Your task to perform on an android device: Open location settings Image 0: 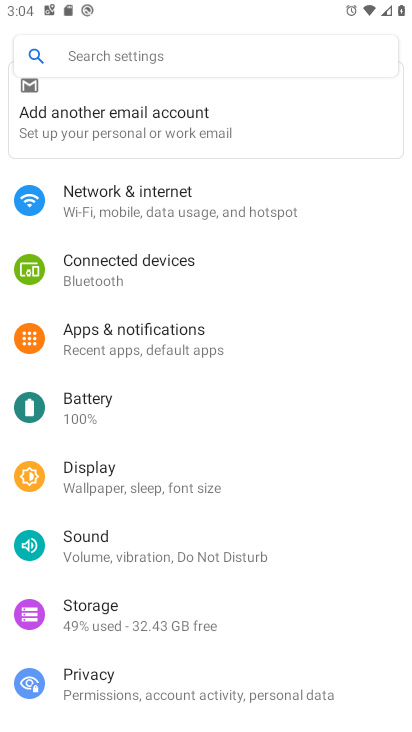
Step 0: press home button
Your task to perform on an android device: Open location settings Image 1: 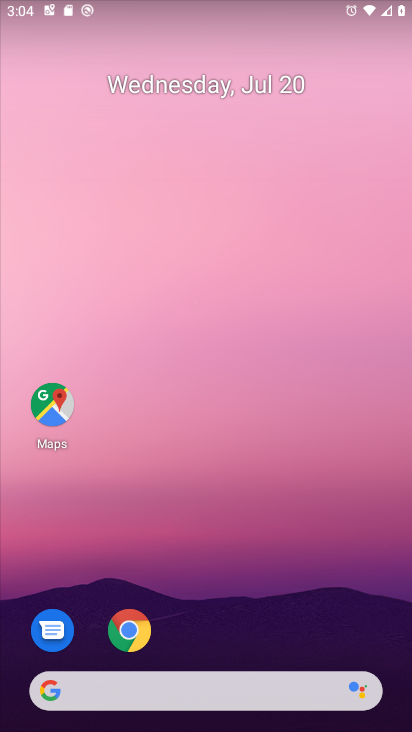
Step 1: drag from (158, 689) to (201, 197)
Your task to perform on an android device: Open location settings Image 2: 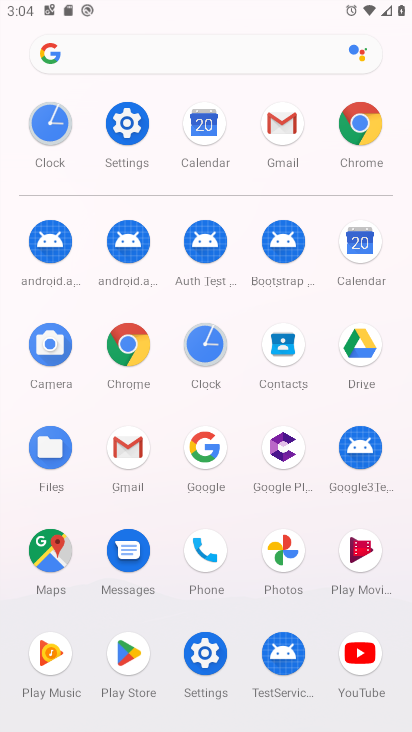
Step 2: click (132, 142)
Your task to perform on an android device: Open location settings Image 3: 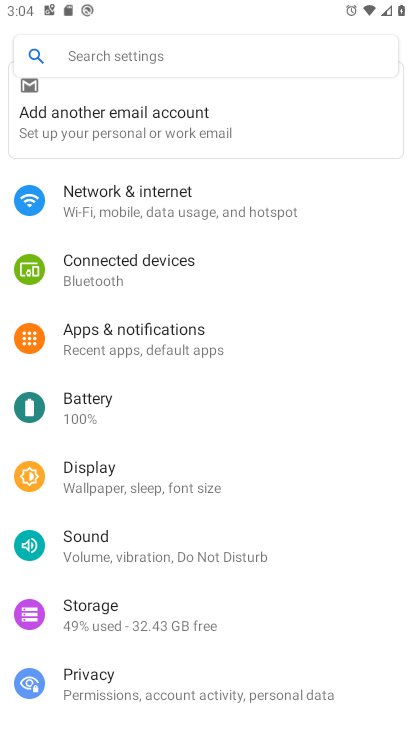
Step 3: drag from (135, 654) to (176, 371)
Your task to perform on an android device: Open location settings Image 4: 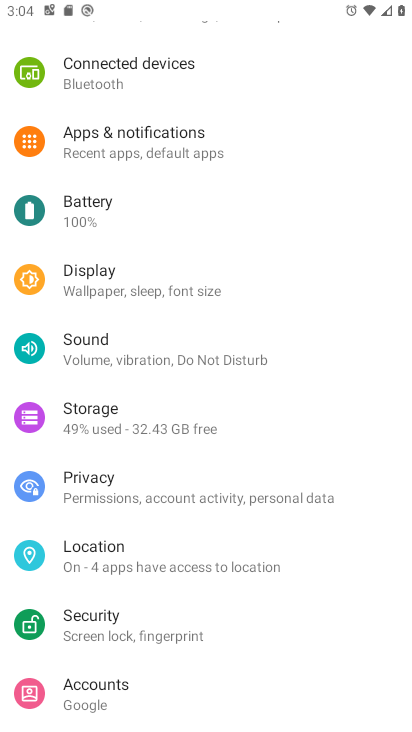
Step 4: click (137, 551)
Your task to perform on an android device: Open location settings Image 5: 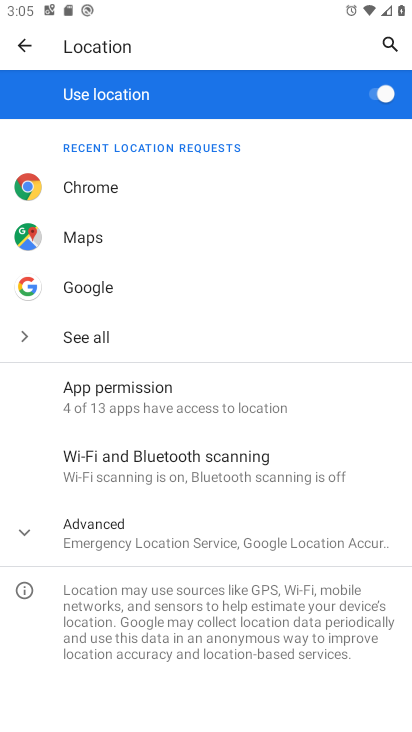
Step 5: task complete